Your task to perform on an android device: Open Chrome and go to the settings page Image 0: 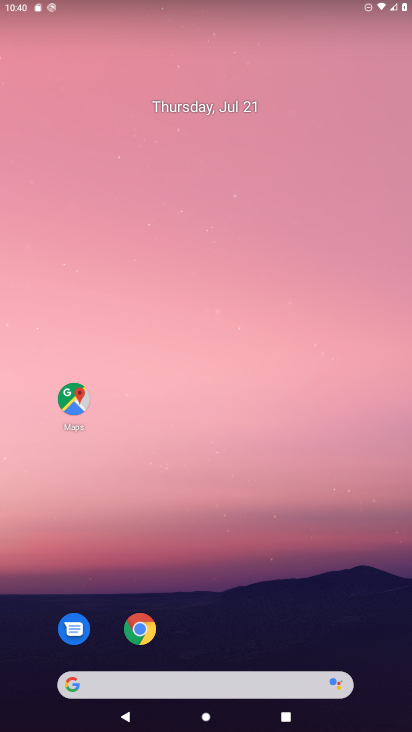
Step 0: click (144, 628)
Your task to perform on an android device: Open Chrome and go to the settings page Image 1: 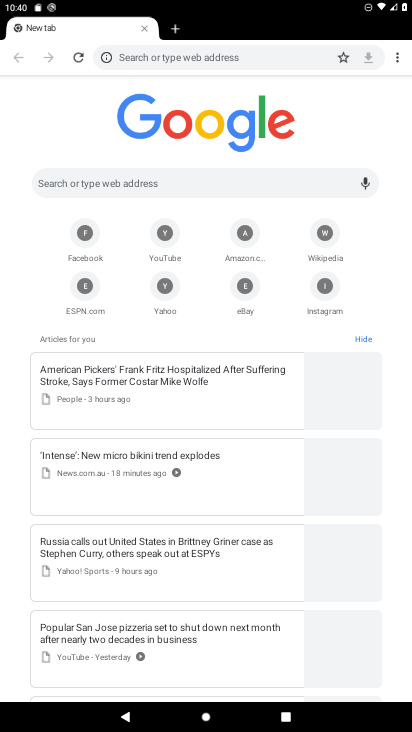
Step 1: click (397, 57)
Your task to perform on an android device: Open Chrome and go to the settings page Image 2: 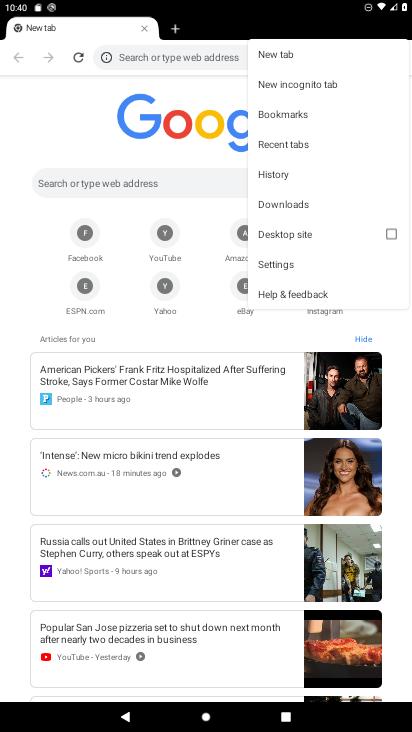
Step 2: click (272, 262)
Your task to perform on an android device: Open Chrome and go to the settings page Image 3: 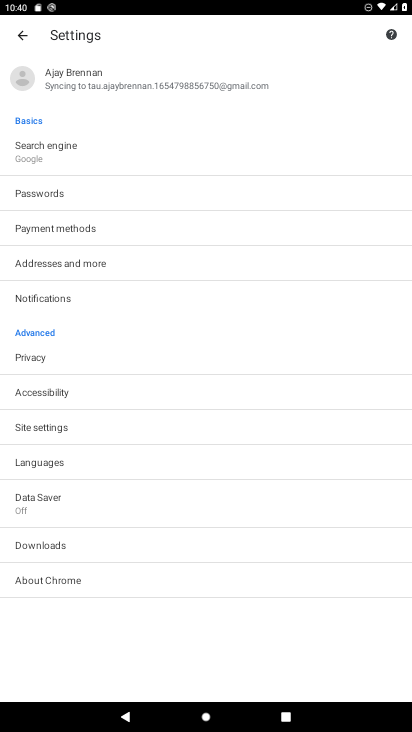
Step 3: task complete